Your task to perform on an android device: check android version Image 0: 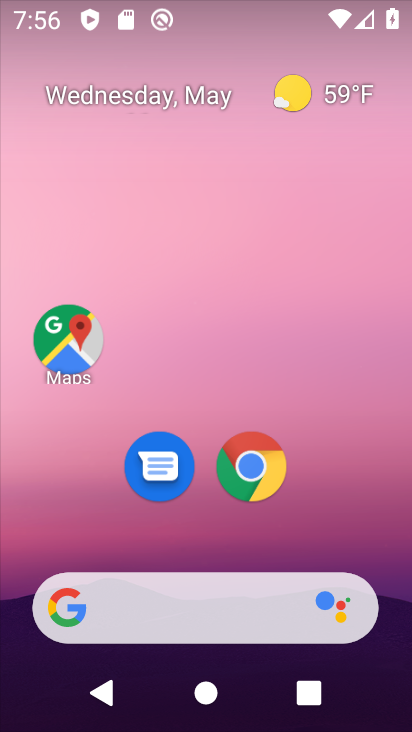
Step 0: drag from (332, 526) to (377, 135)
Your task to perform on an android device: check android version Image 1: 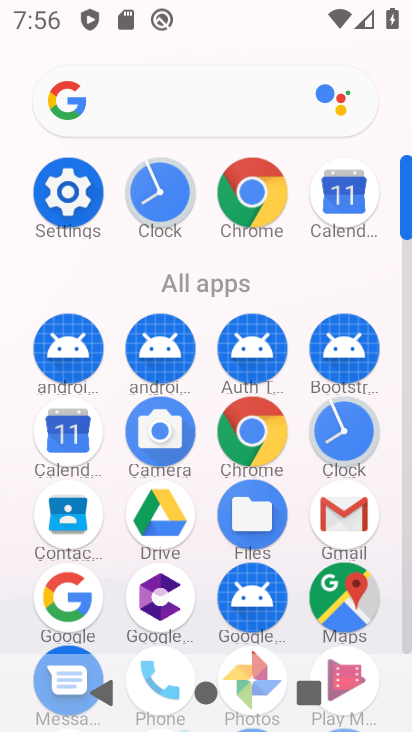
Step 1: click (78, 188)
Your task to perform on an android device: check android version Image 2: 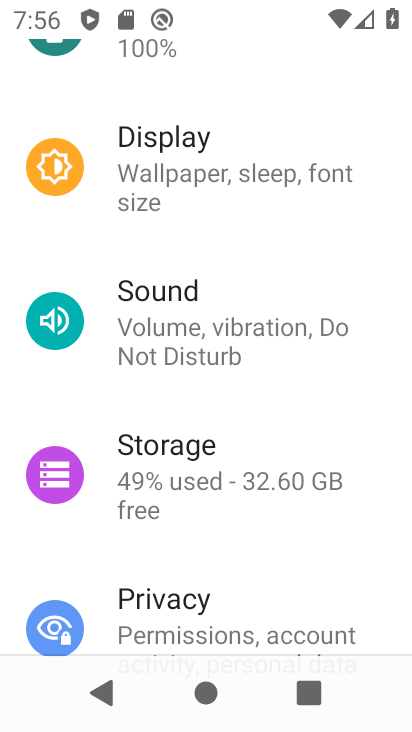
Step 2: drag from (189, 575) to (263, 203)
Your task to perform on an android device: check android version Image 3: 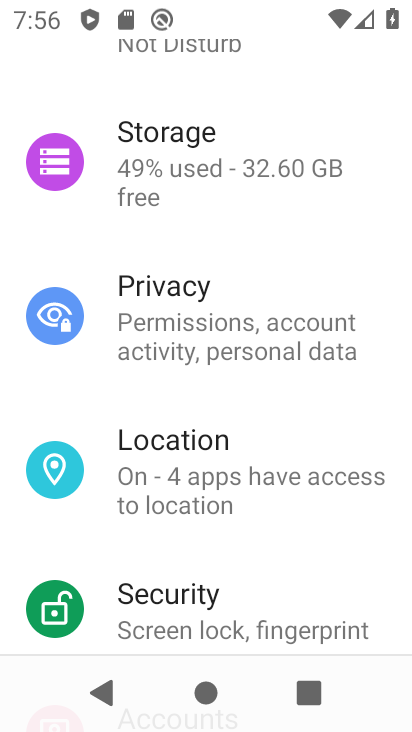
Step 3: drag from (232, 576) to (292, 143)
Your task to perform on an android device: check android version Image 4: 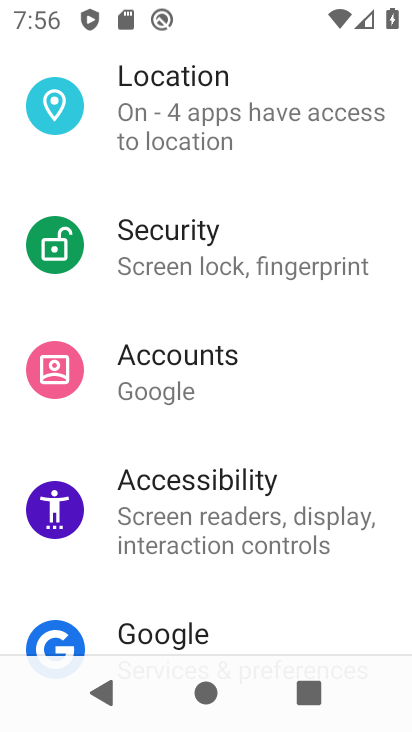
Step 4: drag from (255, 547) to (318, 193)
Your task to perform on an android device: check android version Image 5: 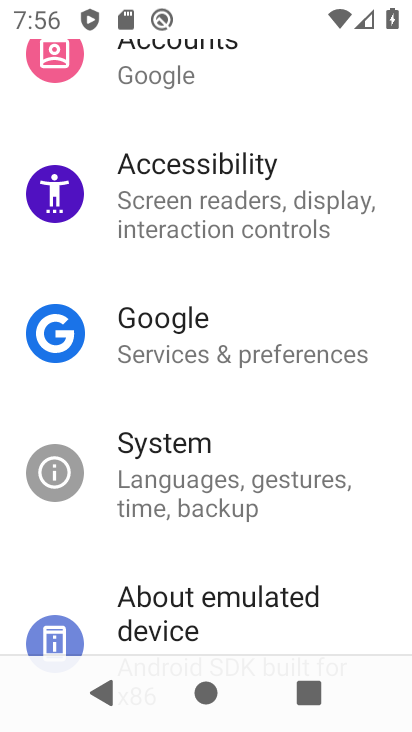
Step 5: drag from (221, 542) to (254, 394)
Your task to perform on an android device: check android version Image 6: 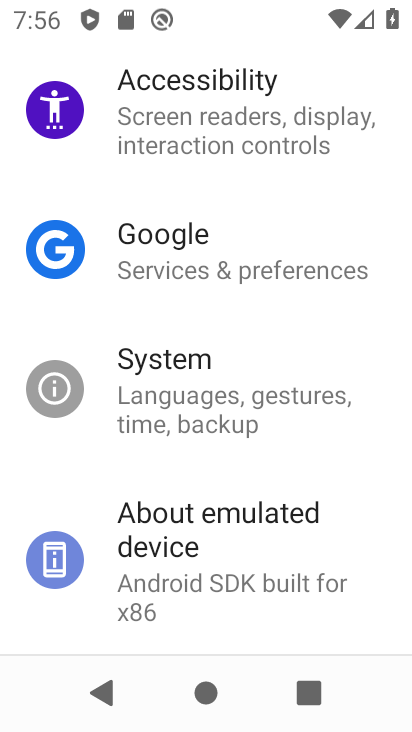
Step 6: click (201, 566)
Your task to perform on an android device: check android version Image 7: 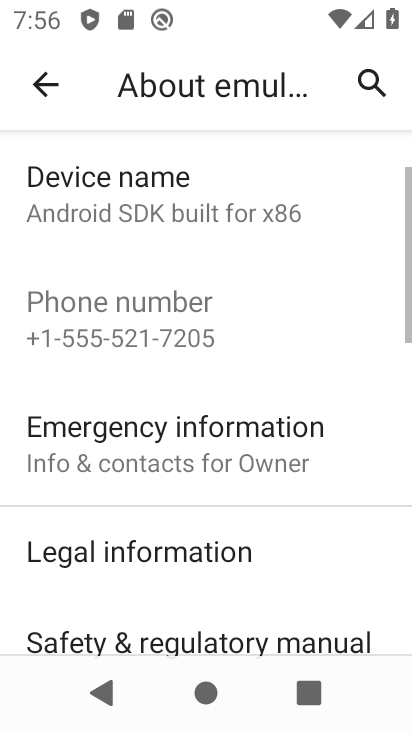
Step 7: drag from (150, 609) to (218, 202)
Your task to perform on an android device: check android version Image 8: 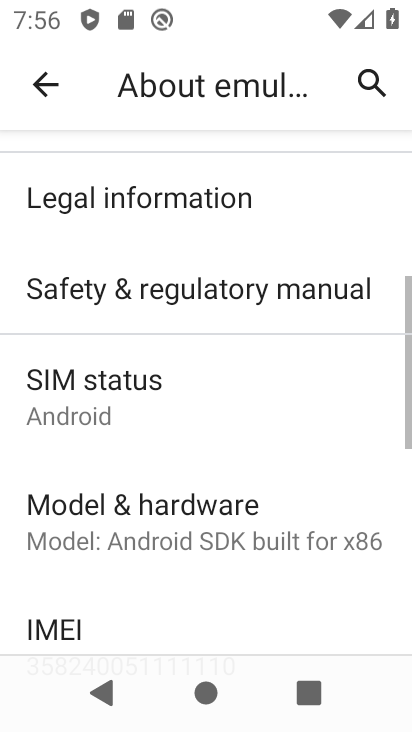
Step 8: drag from (140, 608) to (230, 228)
Your task to perform on an android device: check android version Image 9: 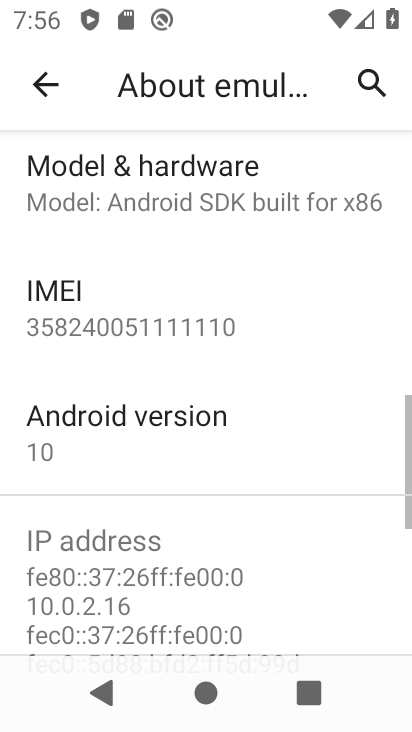
Step 9: click (143, 423)
Your task to perform on an android device: check android version Image 10: 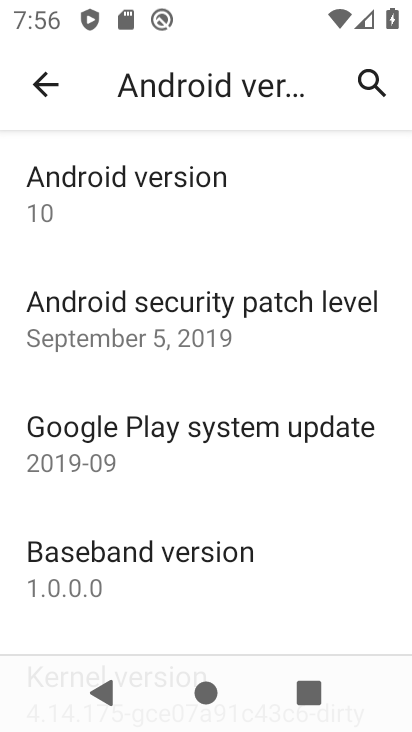
Step 10: task complete